Your task to perform on an android device: change keyboard looks Image 0: 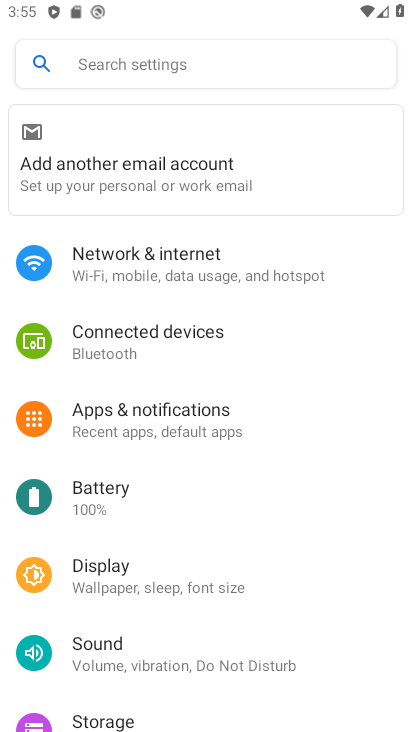
Step 0: drag from (204, 508) to (205, 224)
Your task to perform on an android device: change keyboard looks Image 1: 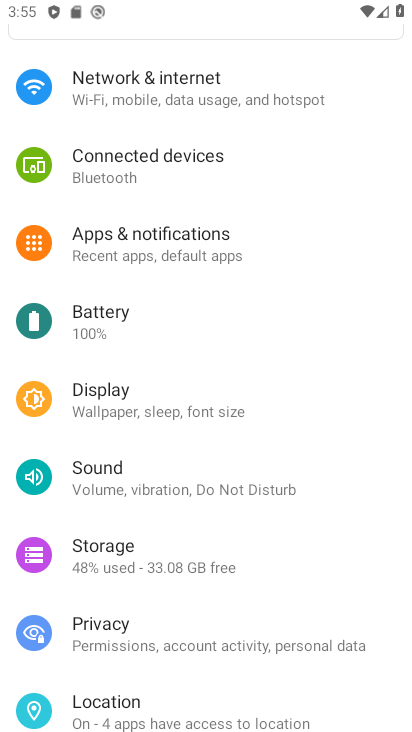
Step 1: drag from (199, 628) to (219, 251)
Your task to perform on an android device: change keyboard looks Image 2: 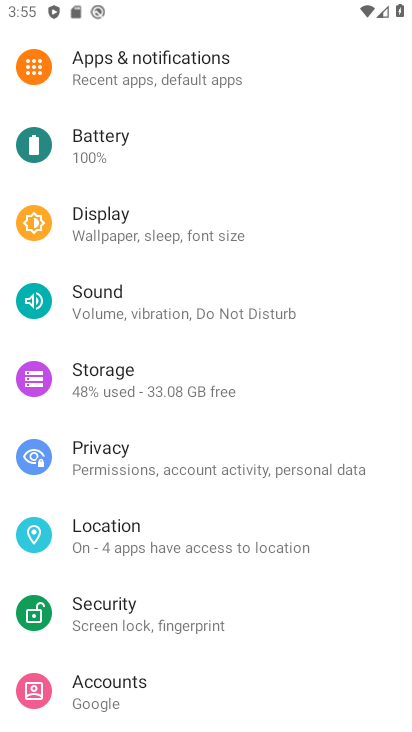
Step 2: drag from (194, 670) to (238, 222)
Your task to perform on an android device: change keyboard looks Image 3: 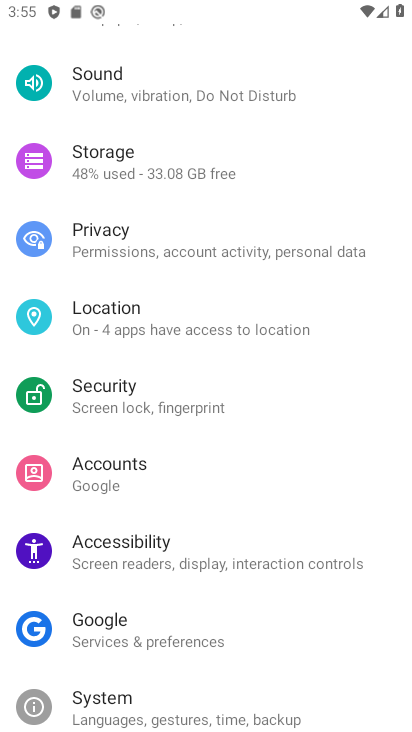
Step 3: drag from (193, 539) to (254, 234)
Your task to perform on an android device: change keyboard looks Image 4: 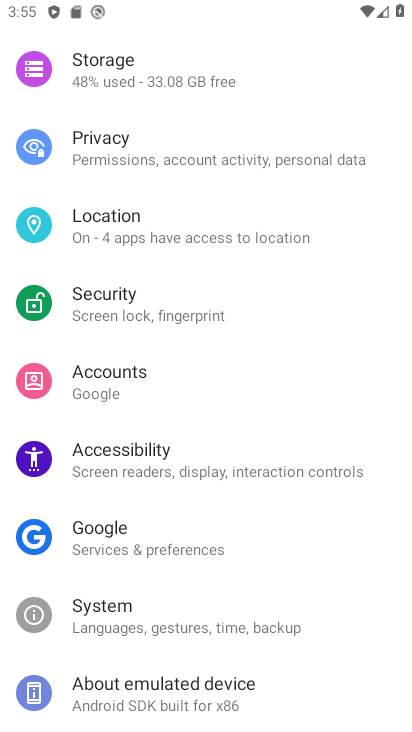
Step 4: click (160, 597)
Your task to perform on an android device: change keyboard looks Image 5: 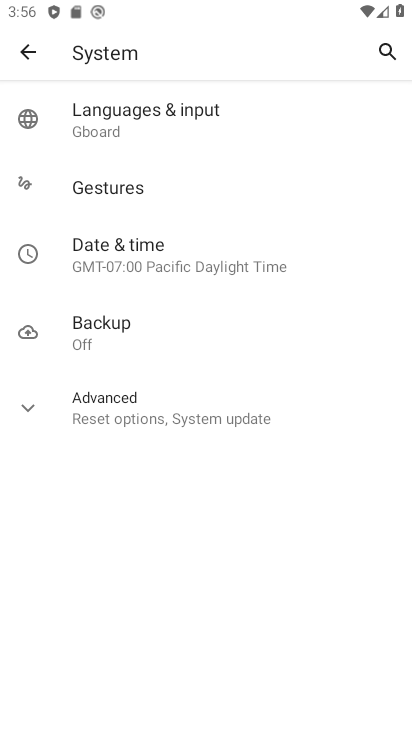
Step 5: click (141, 123)
Your task to perform on an android device: change keyboard looks Image 6: 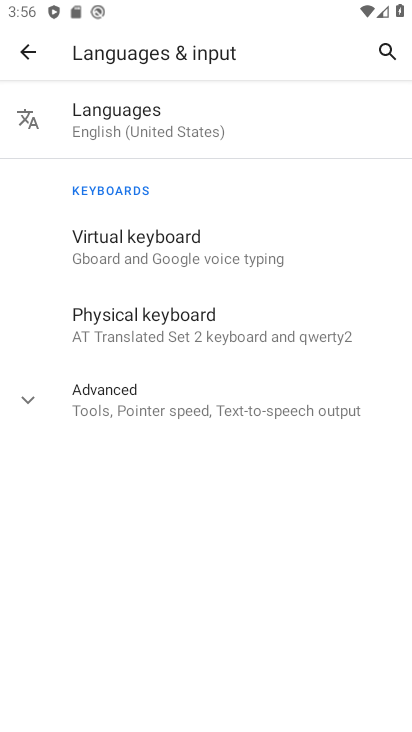
Step 6: click (123, 237)
Your task to perform on an android device: change keyboard looks Image 7: 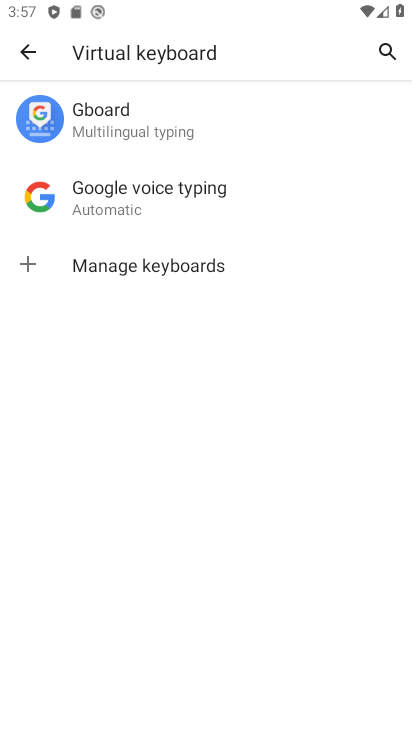
Step 7: click (121, 126)
Your task to perform on an android device: change keyboard looks Image 8: 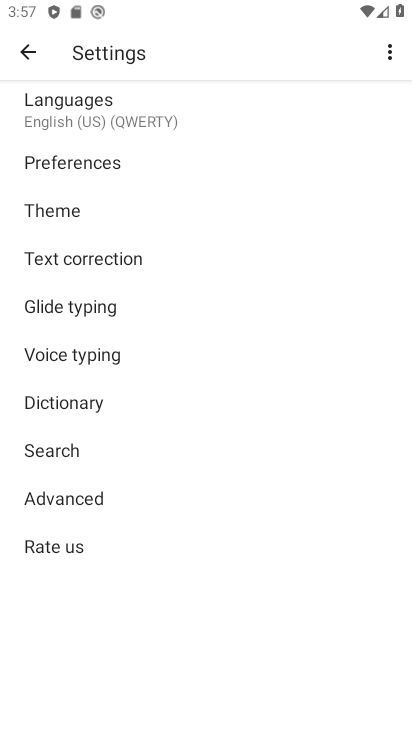
Step 8: click (78, 214)
Your task to perform on an android device: change keyboard looks Image 9: 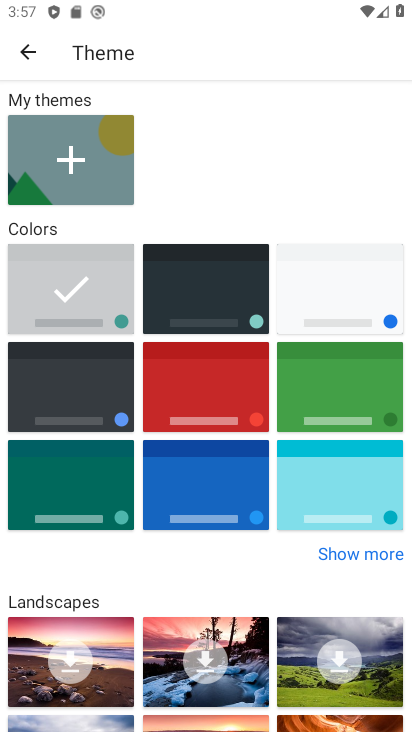
Step 9: click (179, 260)
Your task to perform on an android device: change keyboard looks Image 10: 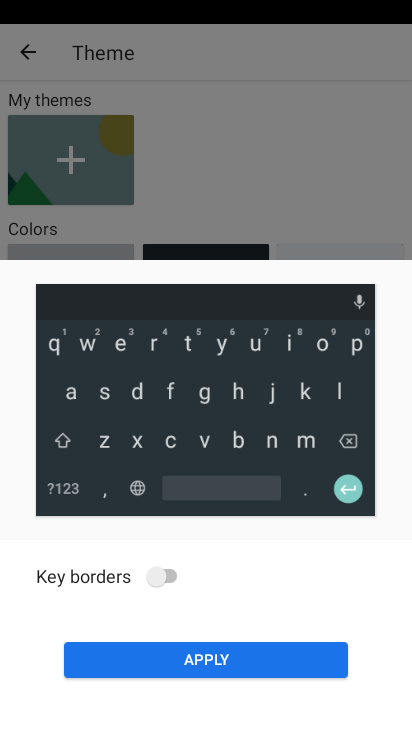
Step 10: click (220, 664)
Your task to perform on an android device: change keyboard looks Image 11: 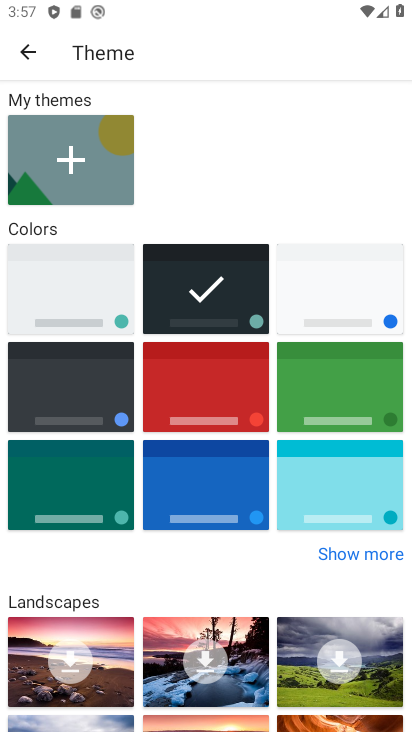
Step 11: task complete